Your task to perform on an android device: Open Chrome and go to settings Image 0: 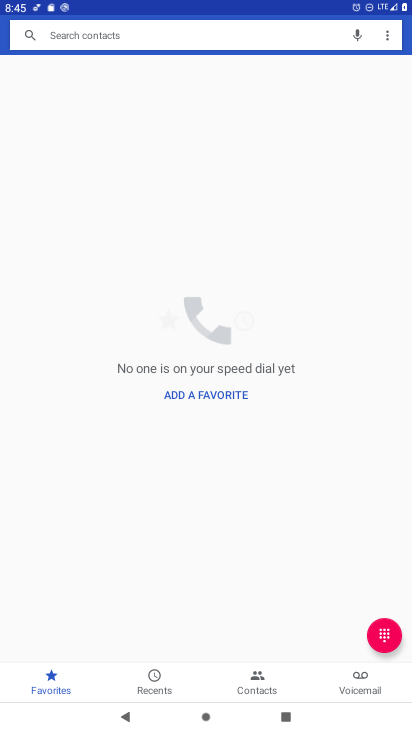
Step 0: press home button
Your task to perform on an android device: Open Chrome and go to settings Image 1: 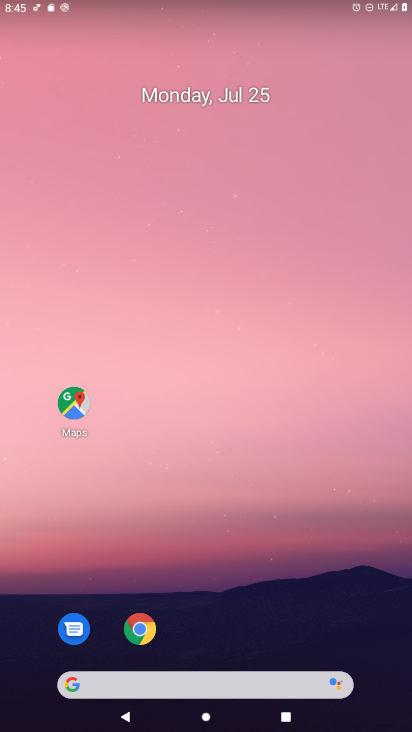
Step 1: click (139, 630)
Your task to perform on an android device: Open Chrome and go to settings Image 2: 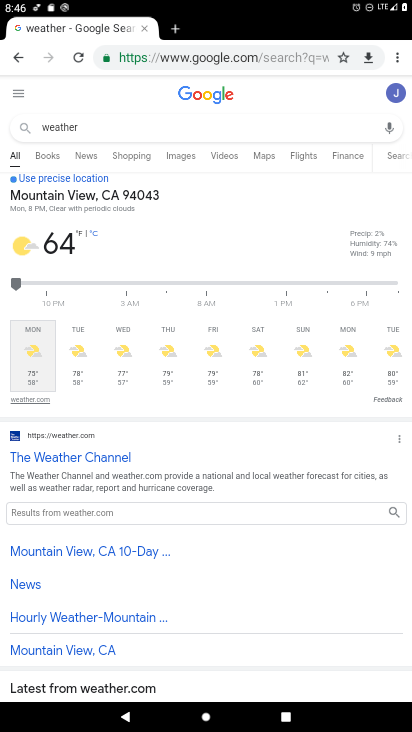
Step 2: click (397, 57)
Your task to perform on an android device: Open Chrome and go to settings Image 3: 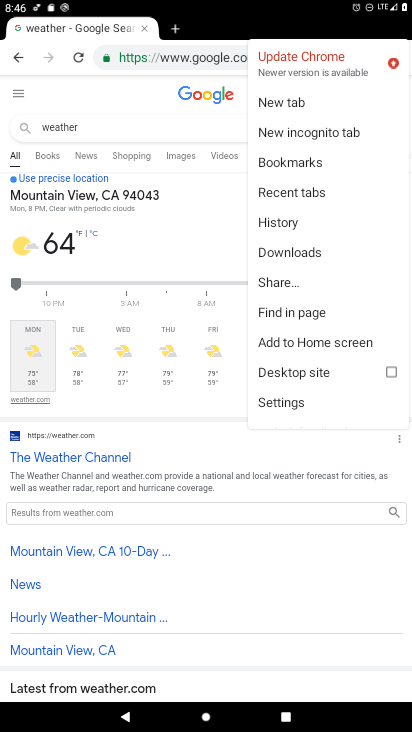
Step 3: click (276, 401)
Your task to perform on an android device: Open Chrome and go to settings Image 4: 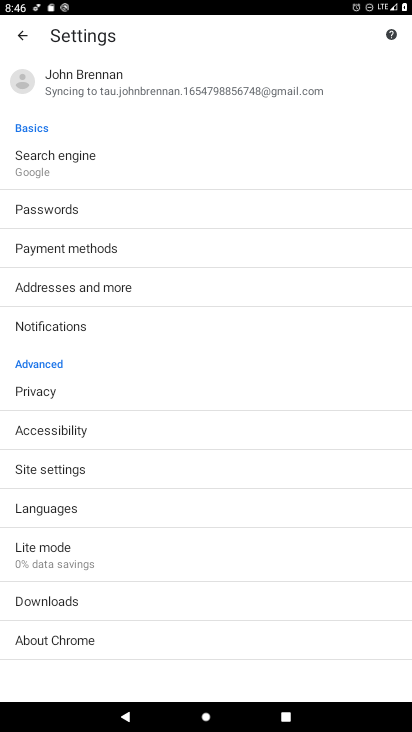
Step 4: task complete